Your task to perform on an android device: check storage Image 0: 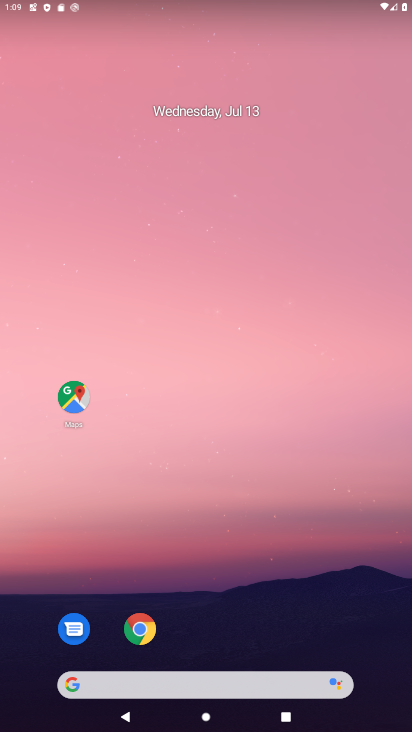
Step 0: drag from (195, 638) to (262, 272)
Your task to perform on an android device: check storage Image 1: 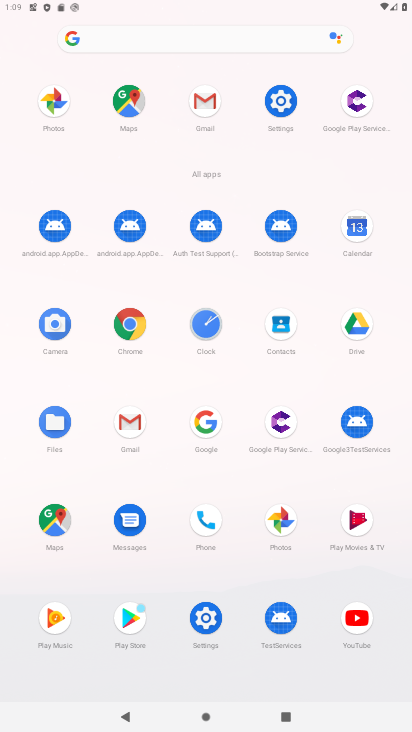
Step 1: click (197, 623)
Your task to perform on an android device: check storage Image 2: 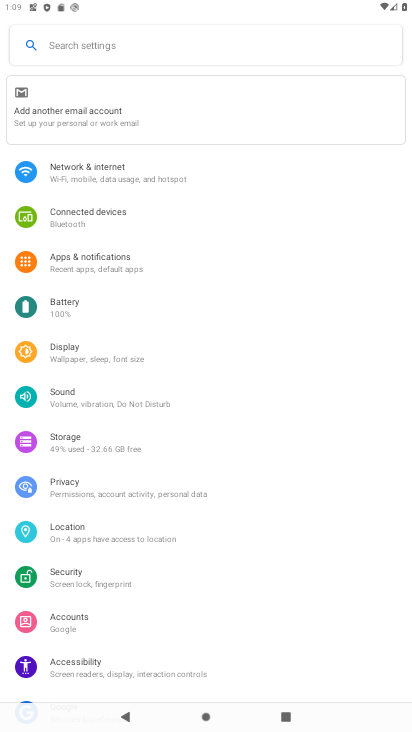
Step 2: click (110, 436)
Your task to perform on an android device: check storage Image 3: 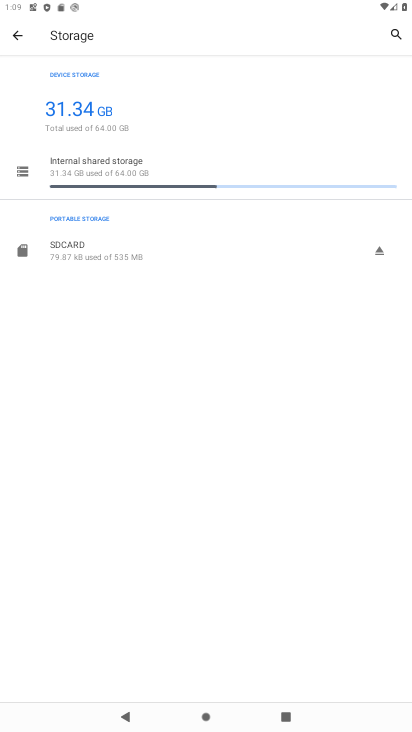
Step 3: task complete